Your task to perform on an android device: allow notifications from all sites in the chrome app Image 0: 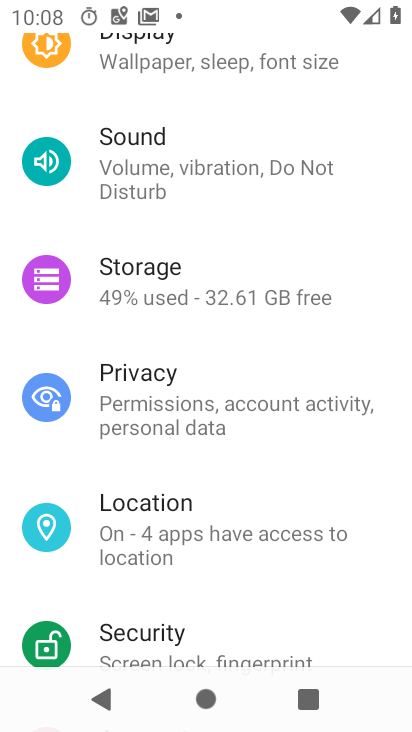
Step 0: press home button
Your task to perform on an android device: allow notifications from all sites in the chrome app Image 1: 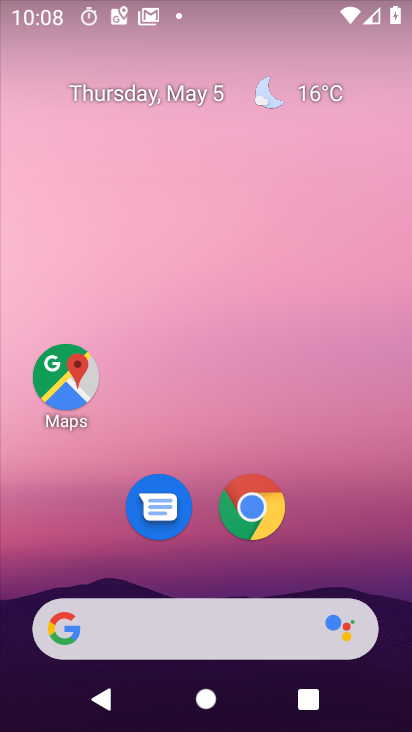
Step 1: click (244, 503)
Your task to perform on an android device: allow notifications from all sites in the chrome app Image 2: 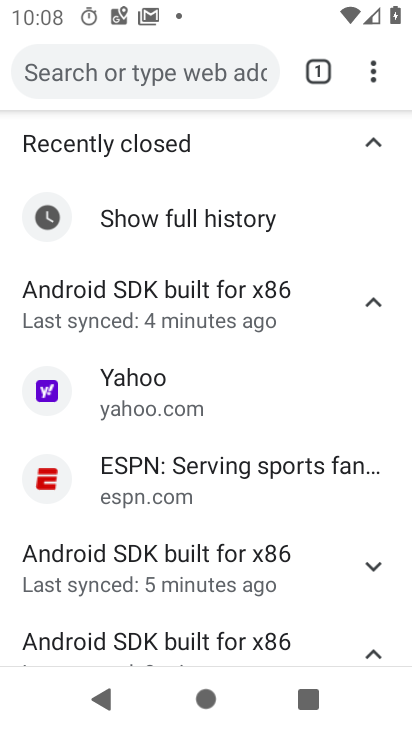
Step 2: click (377, 68)
Your task to perform on an android device: allow notifications from all sites in the chrome app Image 3: 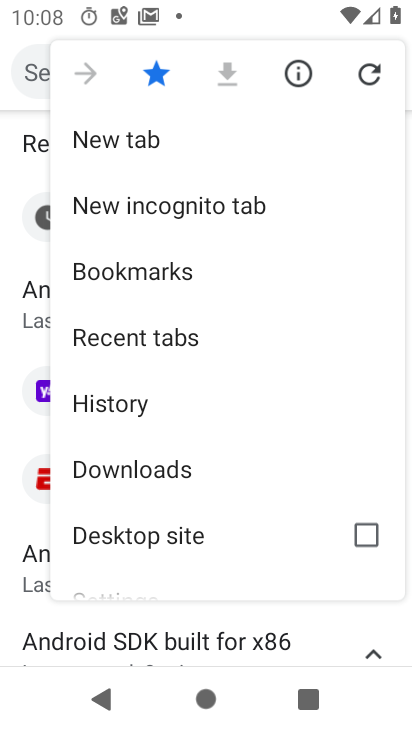
Step 3: click (118, 589)
Your task to perform on an android device: allow notifications from all sites in the chrome app Image 4: 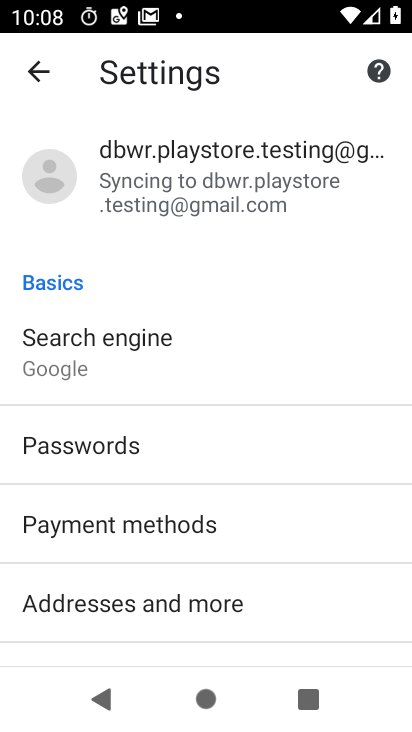
Step 4: drag from (121, 582) to (114, 274)
Your task to perform on an android device: allow notifications from all sites in the chrome app Image 5: 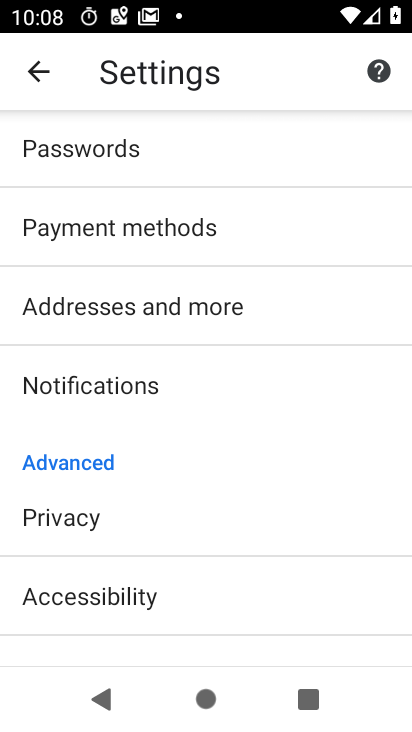
Step 5: click (96, 386)
Your task to perform on an android device: allow notifications from all sites in the chrome app Image 6: 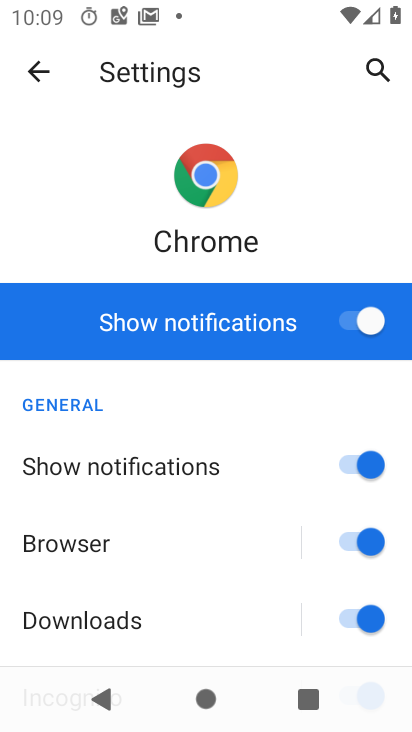
Step 6: task complete